Your task to perform on an android device: Search for pizza restaurants on Maps Image 0: 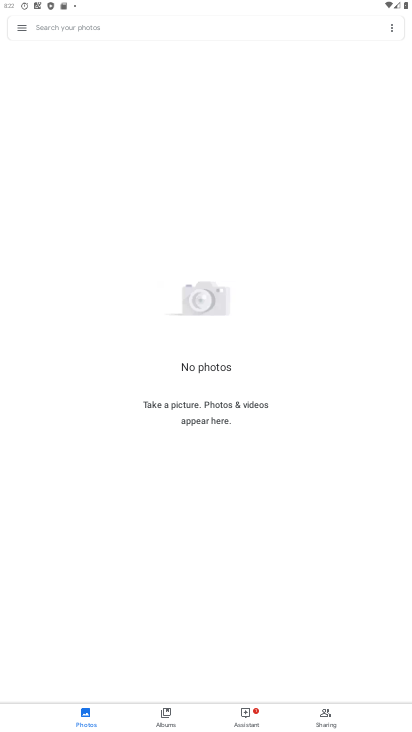
Step 0: press home button
Your task to perform on an android device: Search for pizza restaurants on Maps Image 1: 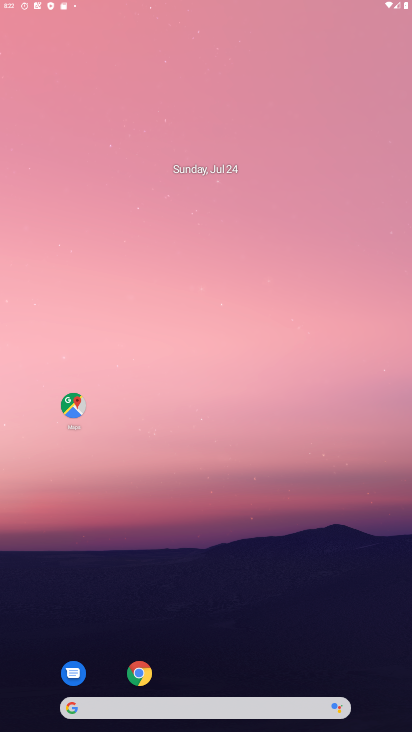
Step 1: drag from (249, 506) to (224, 10)
Your task to perform on an android device: Search for pizza restaurants on Maps Image 2: 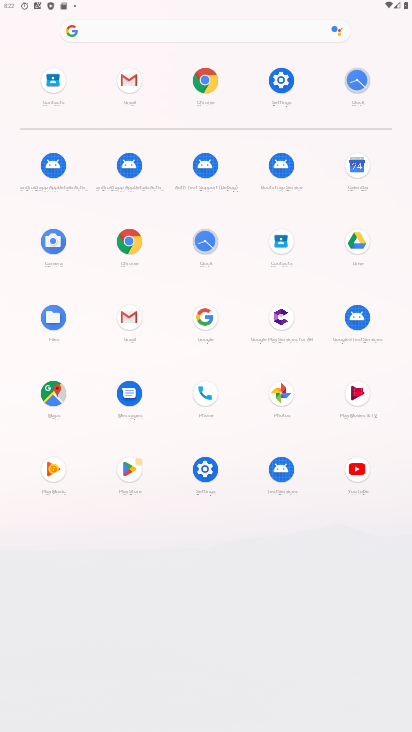
Step 2: drag from (202, 622) to (288, 152)
Your task to perform on an android device: Search for pizza restaurants on Maps Image 3: 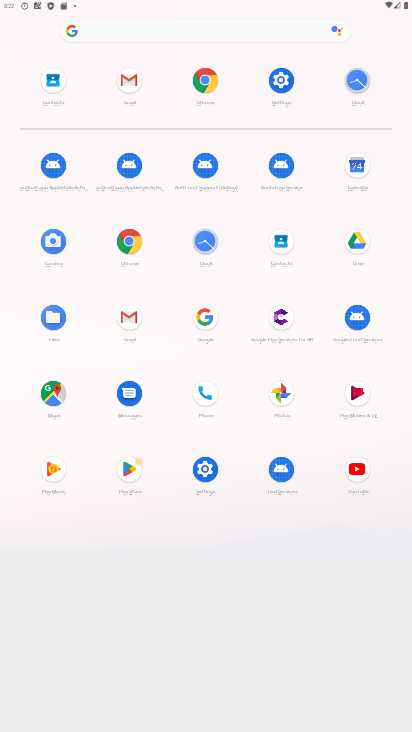
Step 3: click (48, 383)
Your task to perform on an android device: Search for pizza restaurants on Maps Image 4: 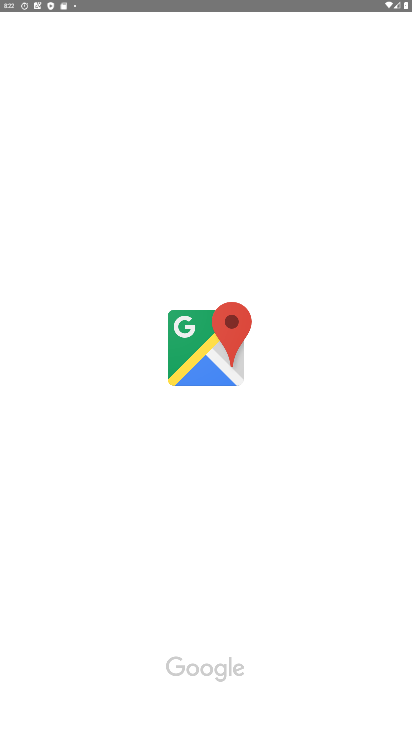
Step 4: drag from (183, 519) to (225, 268)
Your task to perform on an android device: Search for pizza restaurants on Maps Image 5: 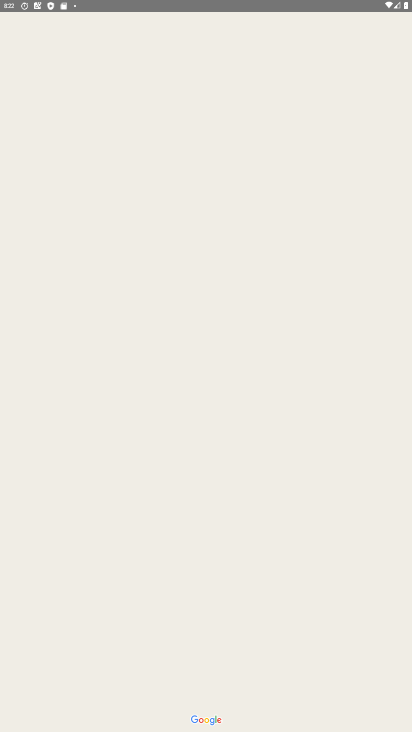
Step 5: click (284, 346)
Your task to perform on an android device: Search for pizza restaurants on Maps Image 6: 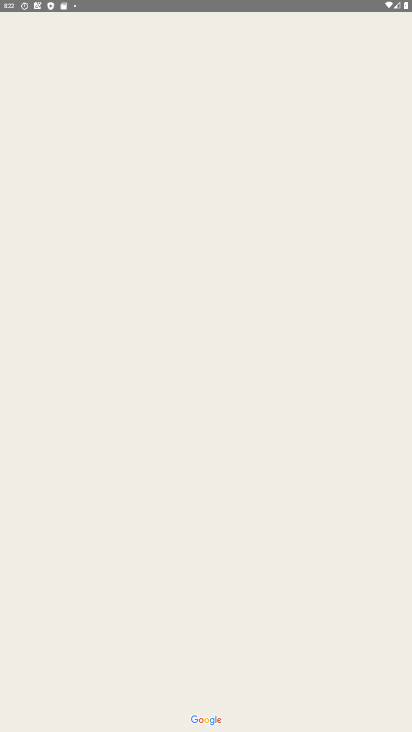
Step 6: drag from (272, 430) to (278, 293)
Your task to perform on an android device: Search for pizza restaurants on Maps Image 7: 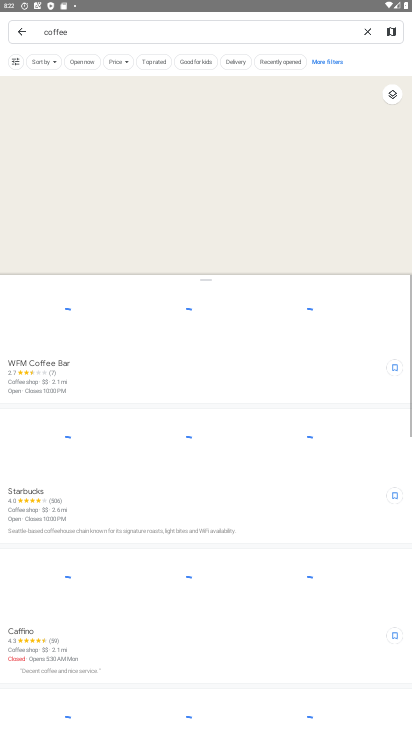
Step 7: drag from (231, 593) to (246, 219)
Your task to perform on an android device: Search for pizza restaurants on Maps Image 8: 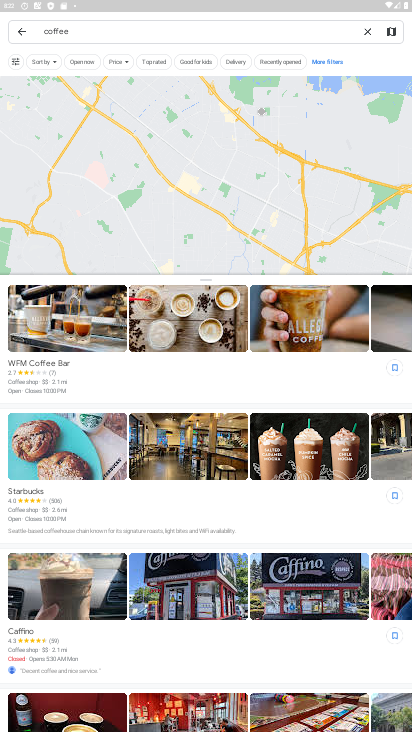
Step 8: click (103, 32)
Your task to perform on an android device: Search for pizza restaurants on Maps Image 9: 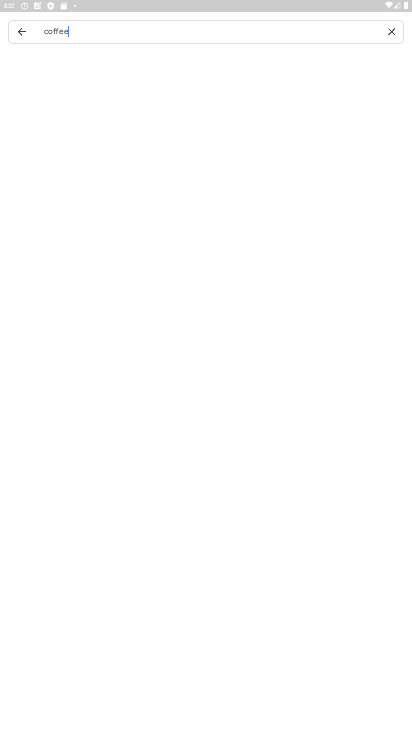
Step 9: click (369, 27)
Your task to perform on an android device: Search for pizza restaurants on Maps Image 10: 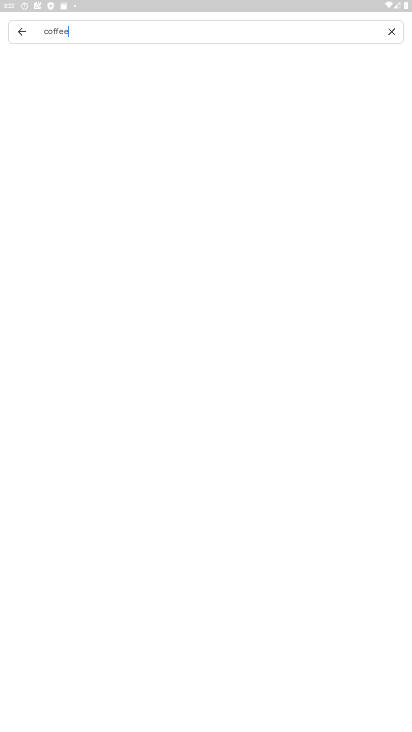
Step 10: click (393, 28)
Your task to perform on an android device: Search for pizza restaurants on Maps Image 11: 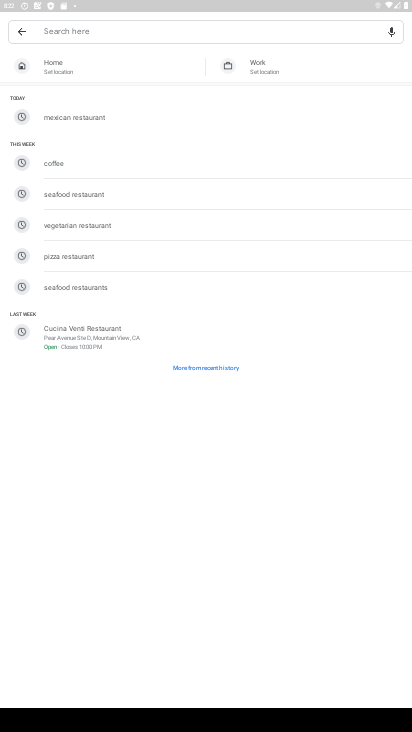
Step 11: type "pizza restaurants"
Your task to perform on an android device: Search for pizza restaurants on Maps Image 12: 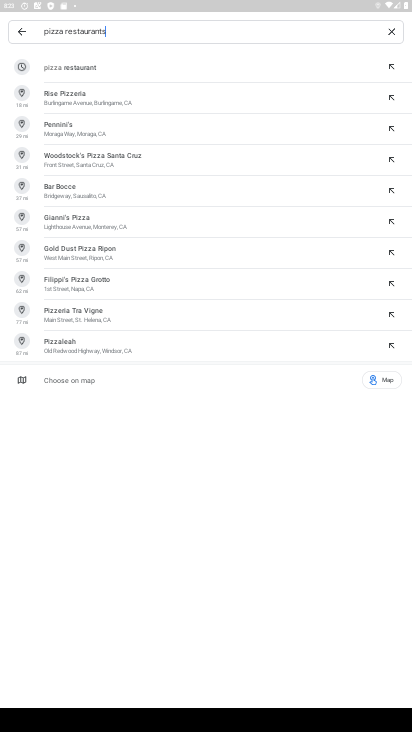
Step 12: click (78, 64)
Your task to perform on an android device: Search for pizza restaurants on Maps Image 13: 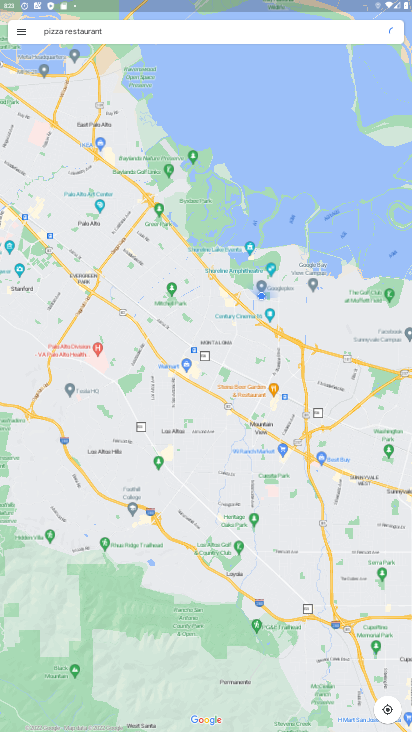
Step 13: task complete